Your task to perform on an android device: Set the phone to "Do not disturb". Image 0: 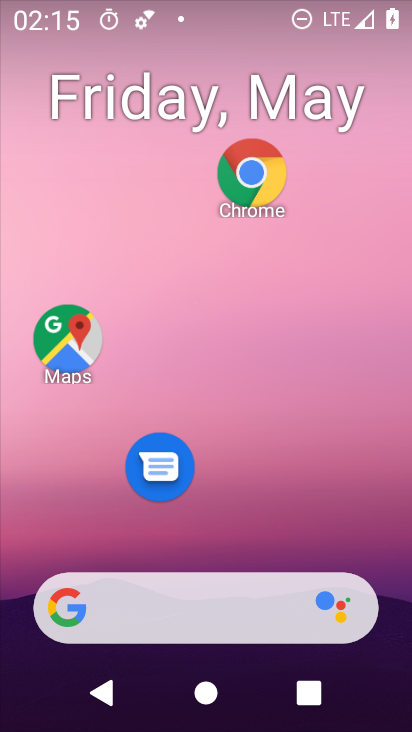
Step 0: drag from (283, 591) to (219, 190)
Your task to perform on an android device: Set the phone to "Do not disturb". Image 1: 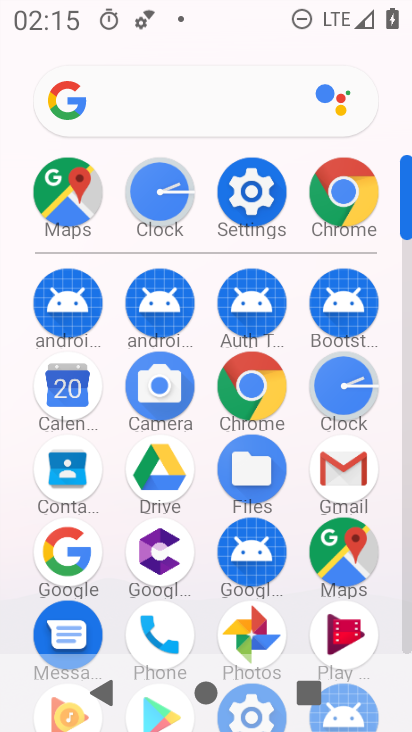
Step 1: click (251, 232)
Your task to perform on an android device: Set the phone to "Do not disturb". Image 2: 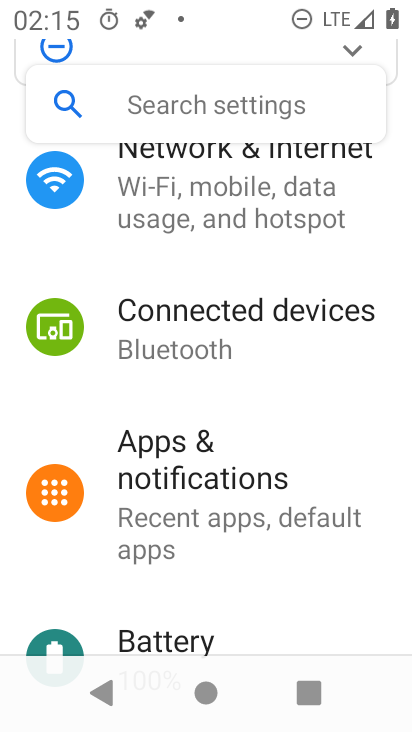
Step 2: click (149, 114)
Your task to perform on an android device: Set the phone to "Do not disturb". Image 3: 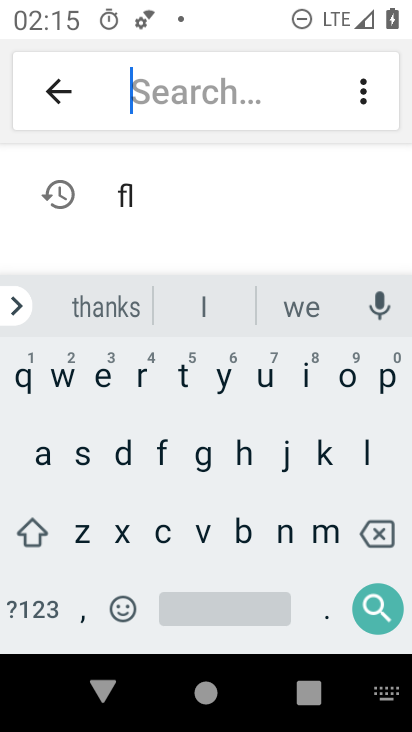
Step 3: click (122, 450)
Your task to perform on an android device: Set the phone to "Do not disturb". Image 4: 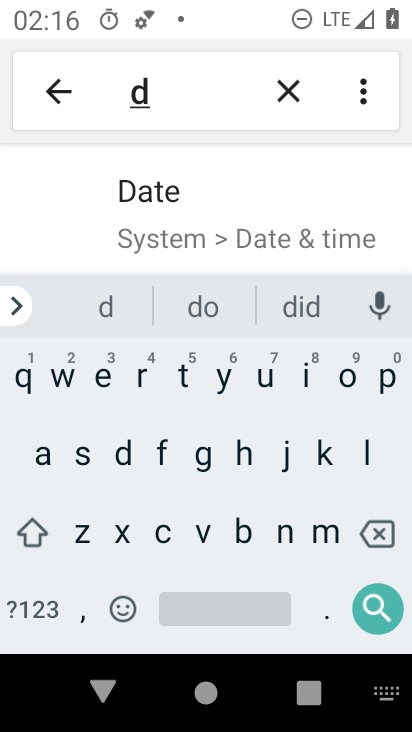
Step 4: click (287, 538)
Your task to perform on an android device: Set the phone to "Do not disturb". Image 5: 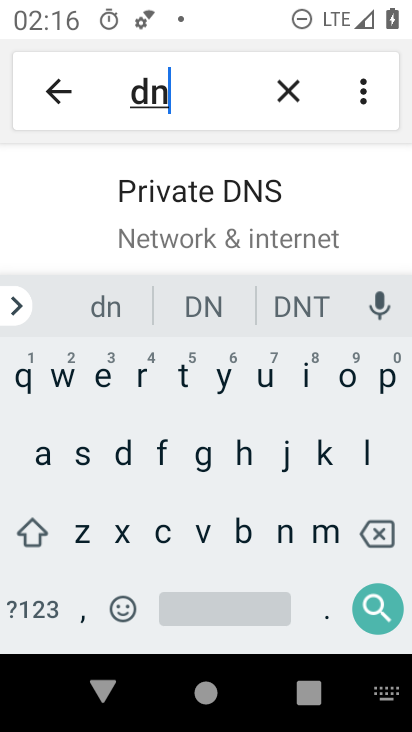
Step 5: click (122, 453)
Your task to perform on an android device: Set the phone to "Do not disturb". Image 6: 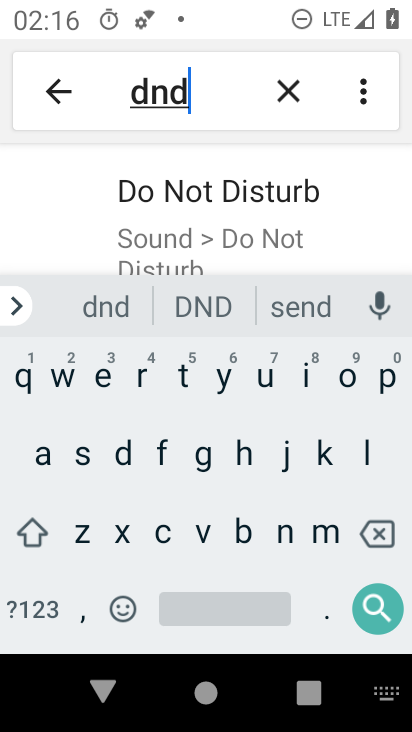
Step 6: click (201, 214)
Your task to perform on an android device: Set the phone to "Do not disturb". Image 7: 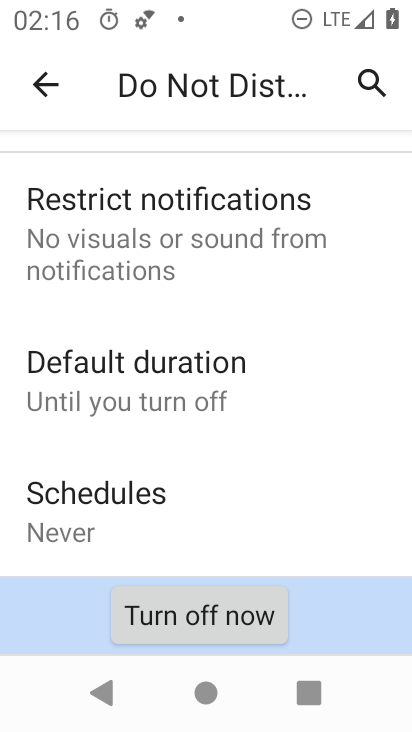
Step 7: click (218, 616)
Your task to perform on an android device: Set the phone to "Do not disturb". Image 8: 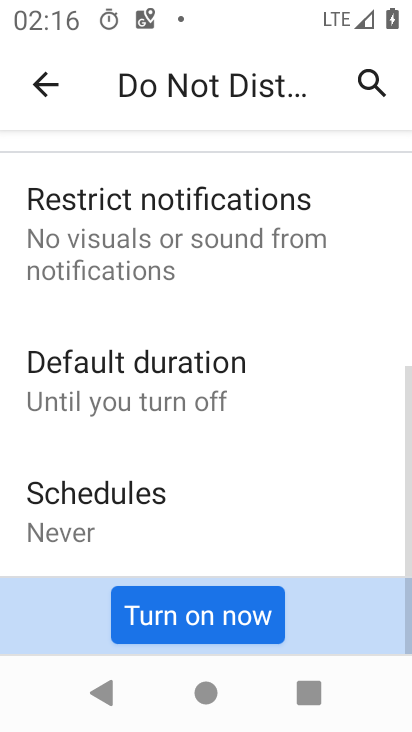
Step 8: task complete